Your task to perform on an android device: change notification settings in the gmail app Image 0: 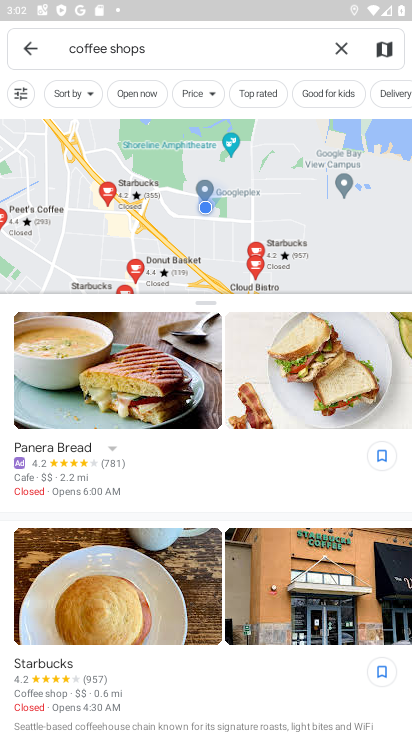
Step 0: press home button
Your task to perform on an android device: change notification settings in the gmail app Image 1: 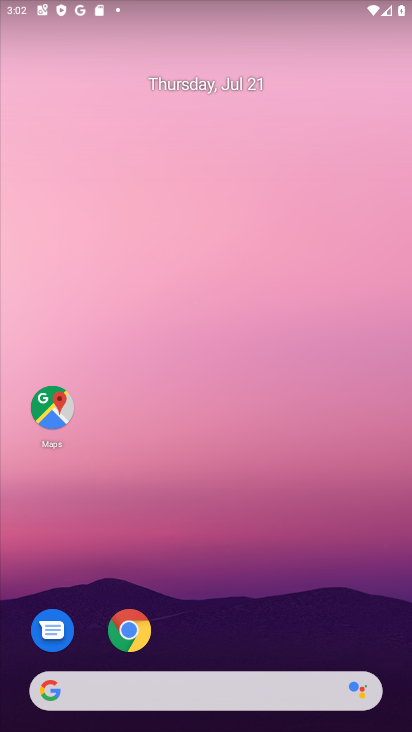
Step 1: drag from (380, 577) to (274, 3)
Your task to perform on an android device: change notification settings in the gmail app Image 2: 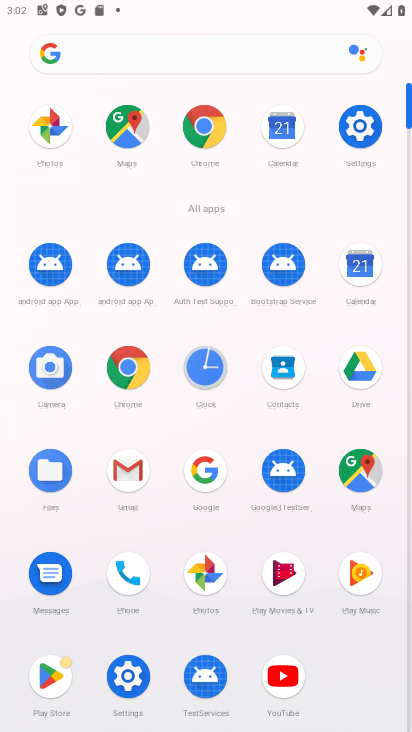
Step 2: click (128, 454)
Your task to perform on an android device: change notification settings in the gmail app Image 3: 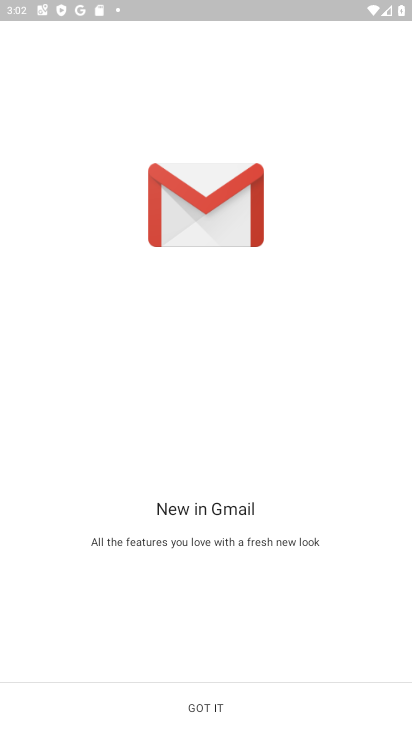
Step 3: click (217, 704)
Your task to perform on an android device: change notification settings in the gmail app Image 4: 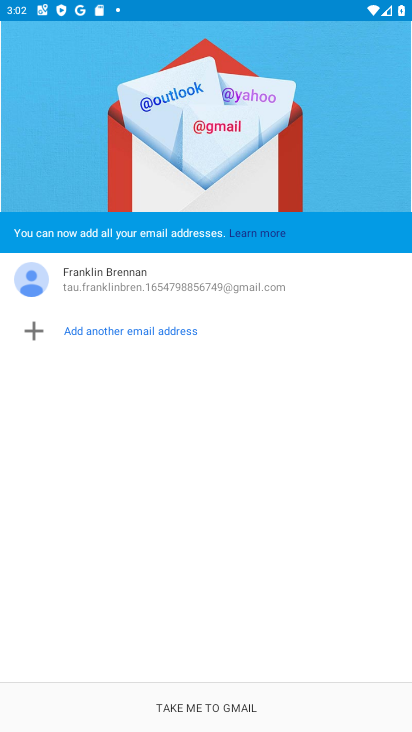
Step 4: click (170, 709)
Your task to perform on an android device: change notification settings in the gmail app Image 5: 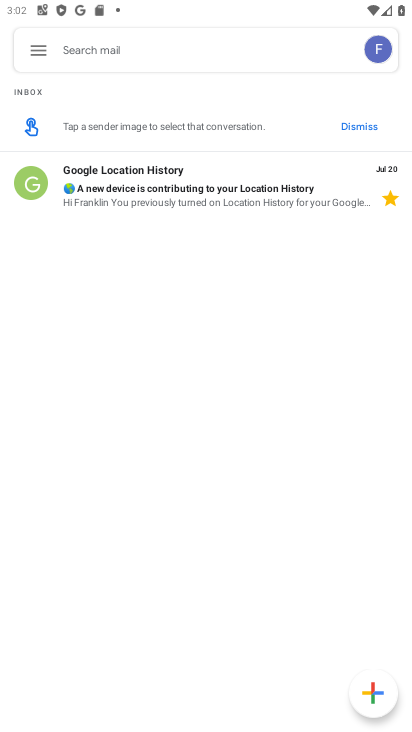
Step 5: click (29, 61)
Your task to perform on an android device: change notification settings in the gmail app Image 6: 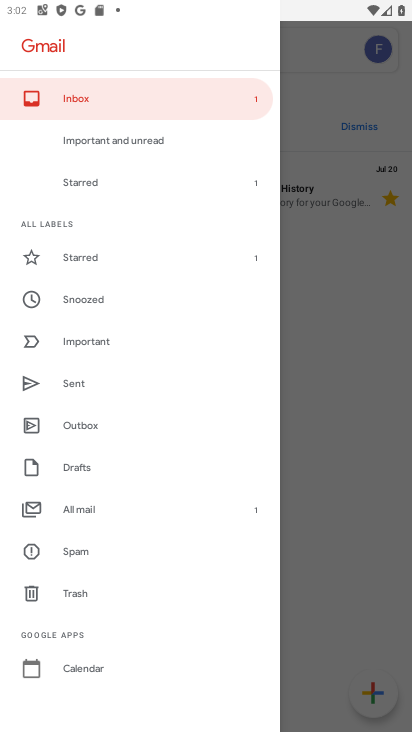
Step 6: drag from (48, 512) to (4, 629)
Your task to perform on an android device: change notification settings in the gmail app Image 7: 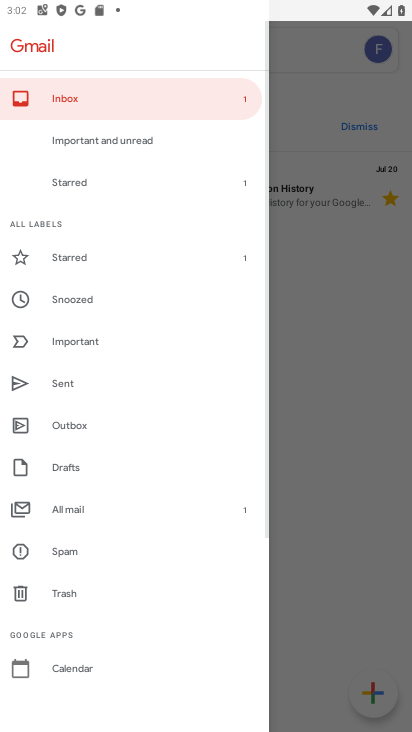
Step 7: drag from (37, 620) to (61, 227)
Your task to perform on an android device: change notification settings in the gmail app Image 8: 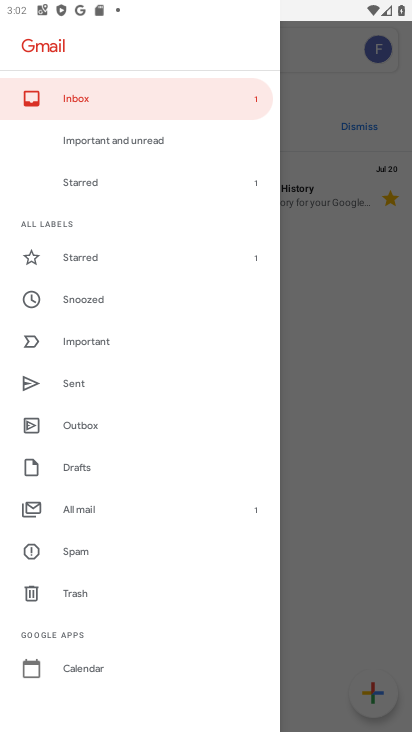
Step 8: drag from (92, 640) to (55, 149)
Your task to perform on an android device: change notification settings in the gmail app Image 9: 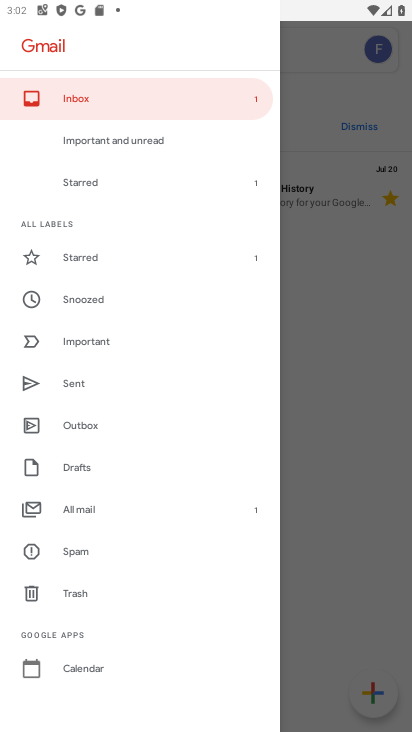
Step 9: drag from (134, 600) to (171, 95)
Your task to perform on an android device: change notification settings in the gmail app Image 10: 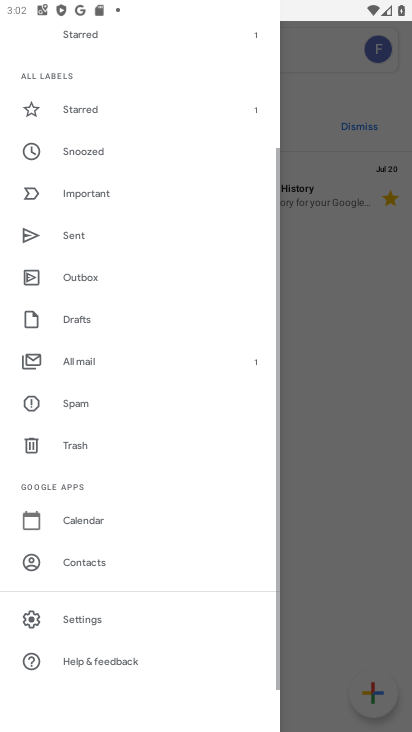
Step 10: click (91, 618)
Your task to perform on an android device: change notification settings in the gmail app Image 11: 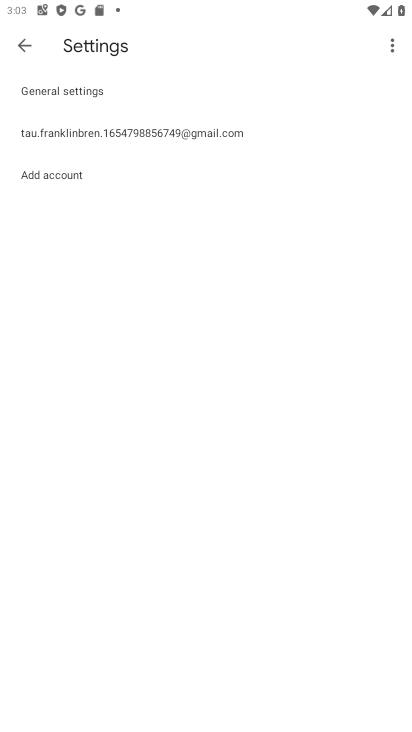
Step 11: click (46, 131)
Your task to perform on an android device: change notification settings in the gmail app Image 12: 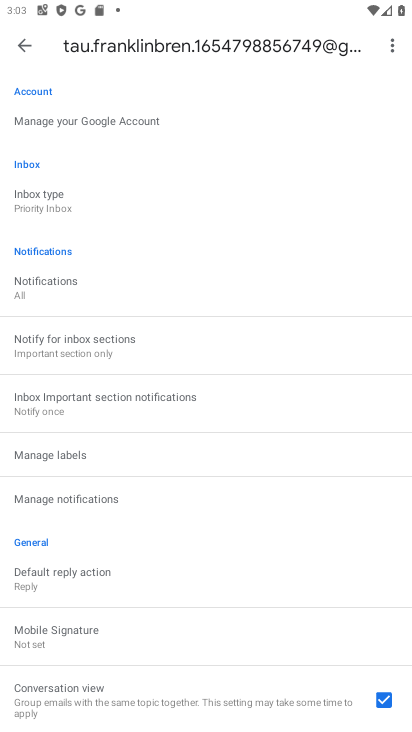
Step 12: click (53, 288)
Your task to perform on an android device: change notification settings in the gmail app Image 13: 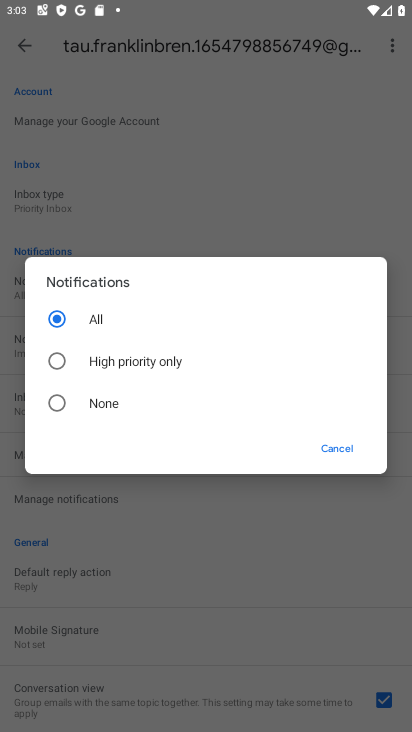
Step 13: click (79, 358)
Your task to perform on an android device: change notification settings in the gmail app Image 14: 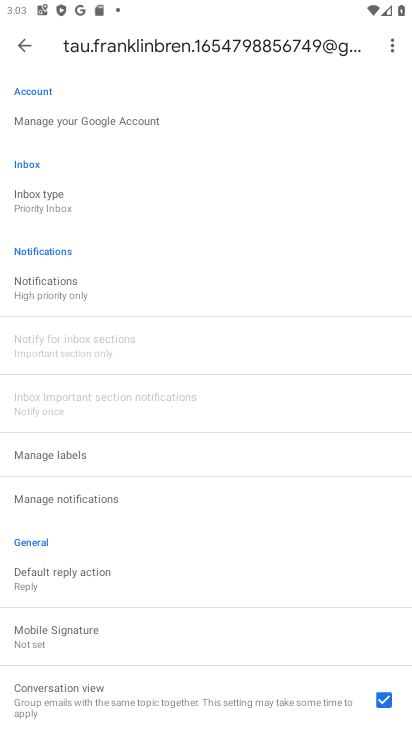
Step 14: task complete